Your task to perform on an android device: Open Android settings Image 0: 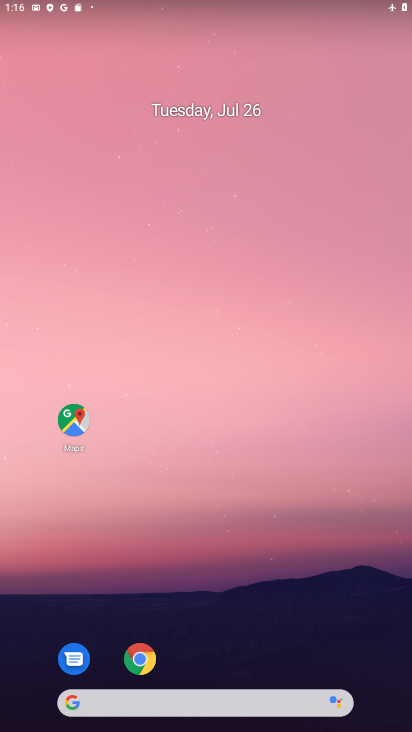
Step 0: press home button
Your task to perform on an android device: Open Android settings Image 1: 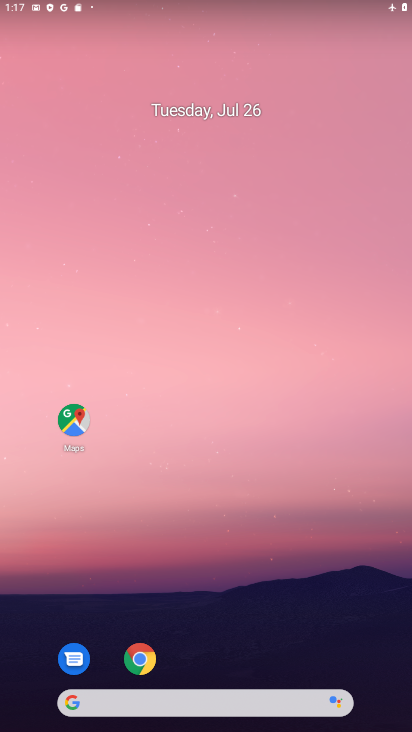
Step 1: drag from (242, 647) to (263, 58)
Your task to perform on an android device: Open Android settings Image 2: 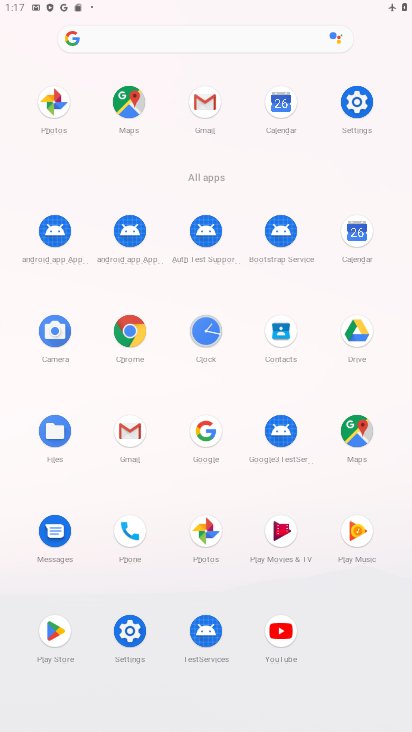
Step 2: click (354, 104)
Your task to perform on an android device: Open Android settings Image 3: 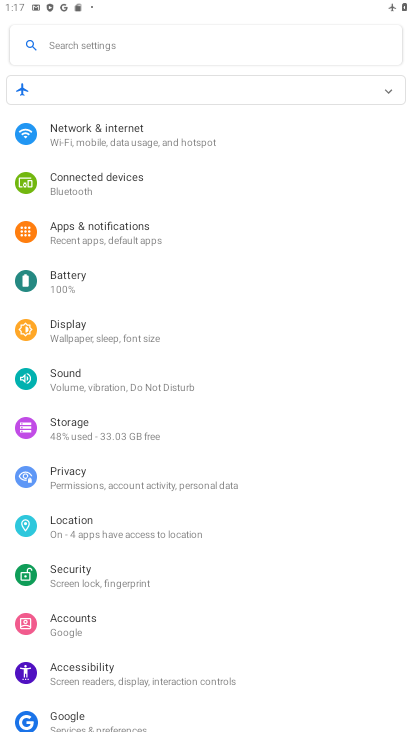
Step 3: task complete